Your task to perform on an android device: turn off location history Image 0: 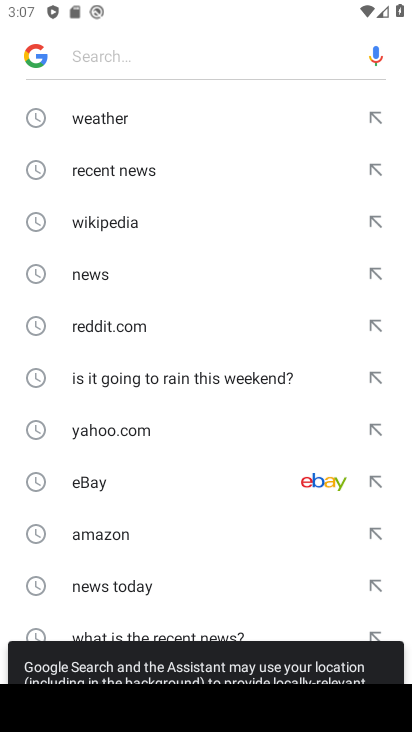
Step 0: press home button
Your task to perform on an android device: turn off location history Image 1: 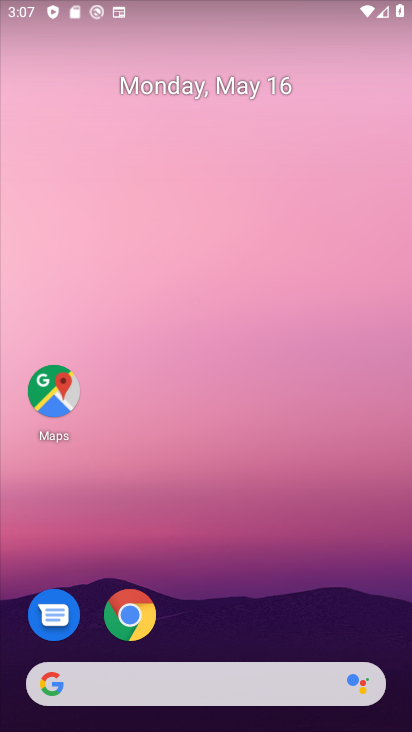
Step 1: drag from (249, 588) to (291, 46)
Your task to perform on an android device: turn off location history Image 2: 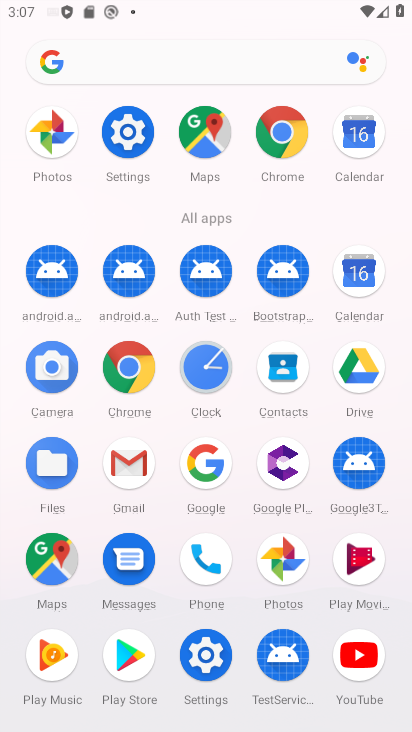
Step 2: click (118, 122)
Your task to perform on an android device: turn off location history Image 3: 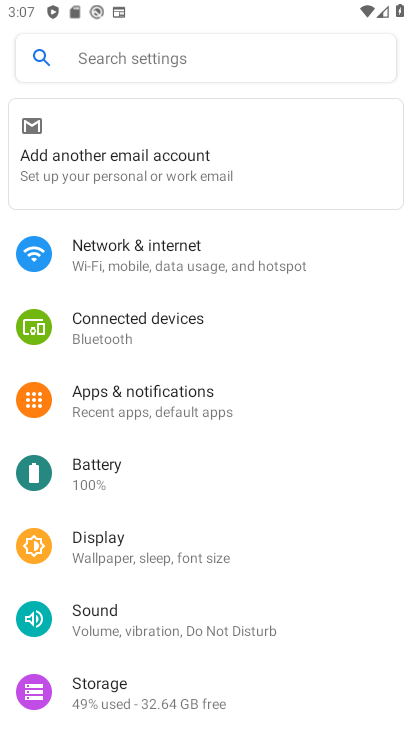
Step 3: drag from (194, 602) to (223, 311)
Your task to perform on an android device: turn off location history Image 4: 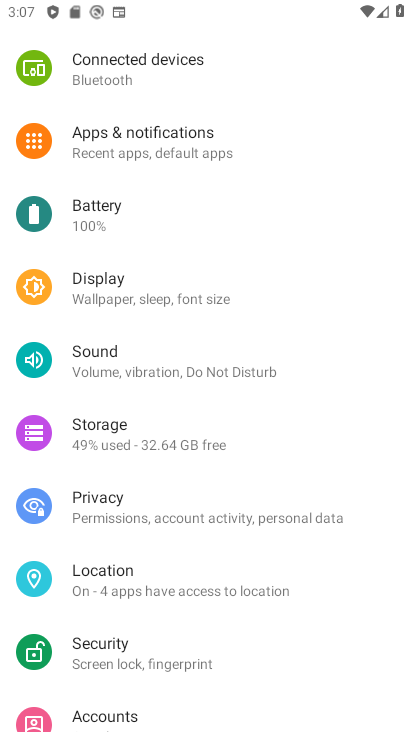
Step 4: click (203, 569)
Your task to perform on an android device: turn off location history Image 5: 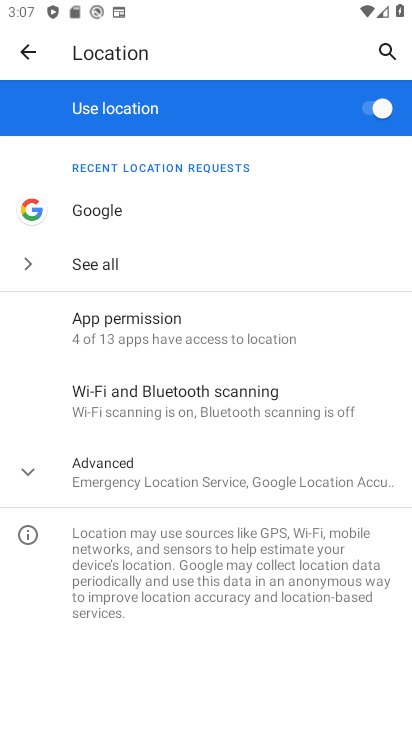
Step 5: click (22, 459)
Your task to perform on an android device: turn off location history Image 6: 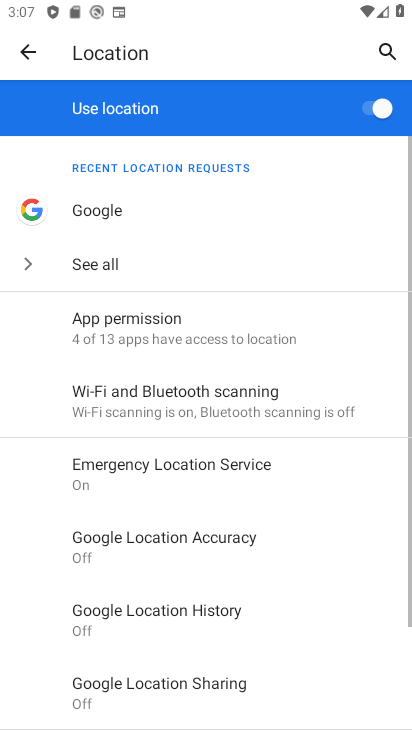
Step 6: task complete